Your task to perform on an android device: search for starred emails in the gmail app Image 0: 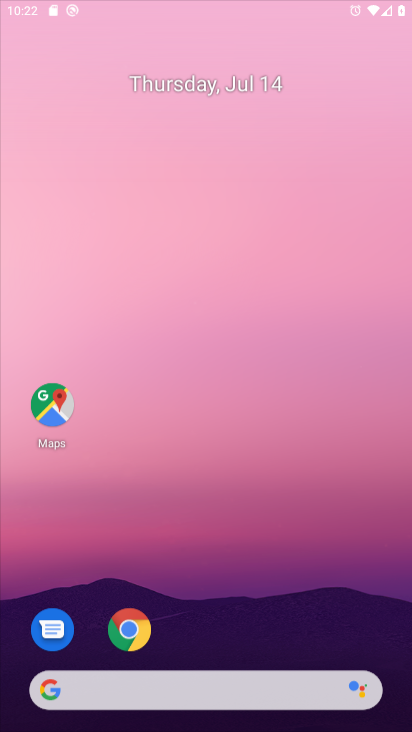
Step 0: click (296, 351)
Your task to perform on an android device: search for starred emails in the gmail app Image 1: 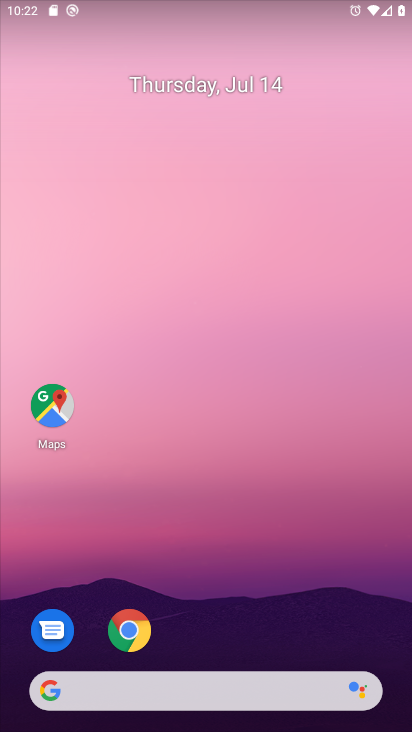
Step 1: drag from (223, 631) to (230, 245)
Your task to perform on an android device: search for starred emails in the gmail app Image 2: 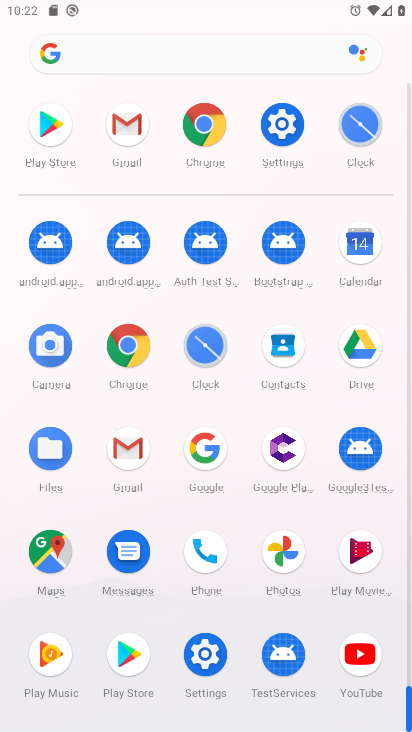
Step 2: click (128, 457)
Your task to perform on an android device: search for starred emails in the gmail app Image 3: 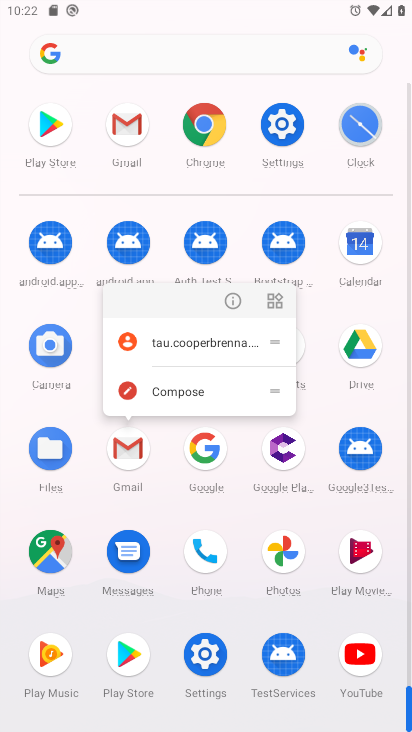
Step 3: click (226, 302)
Your task to perform on an android device: search for starred emails in the gmail app Image 4: 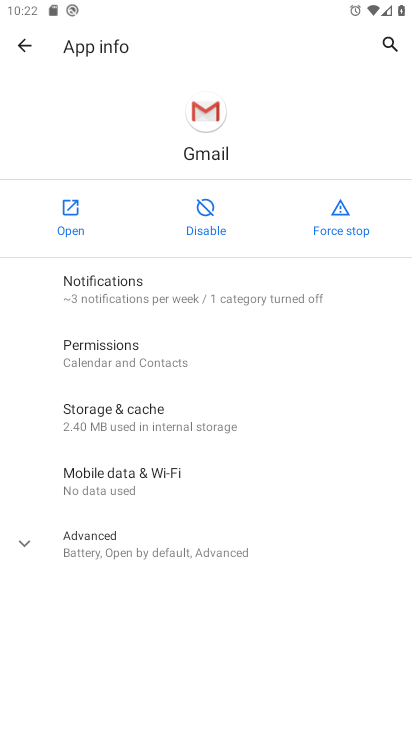
Step 4: click (81, 217)
Your task to perform on an android device: search for starred emails in the gmail app Image 5: 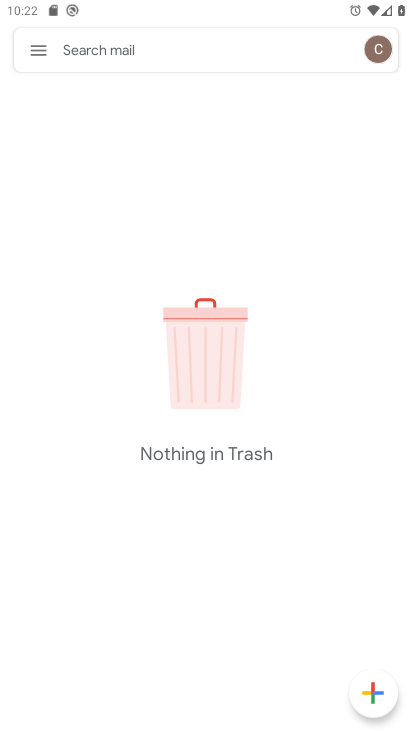
Step 5: drag from (158, 645) to (215, 243)
Your task to perform on an android device: search for starred emails in the gmail app Image 6: 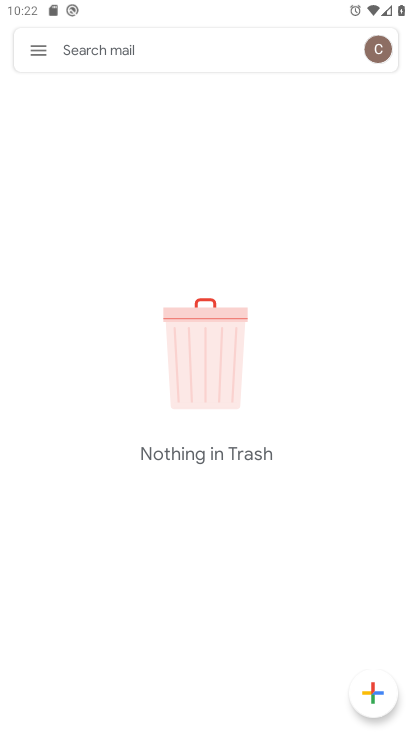
Step 6: click (36, 43)
Your task to perform on an android device: search for starred emails in the gmail app Image 7: 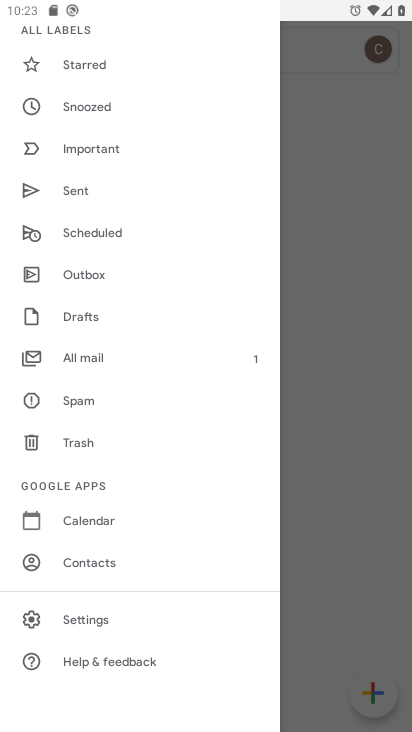
Step 7: click (97, 73)
Your task to perform on an android device: search for starred emails in the gmail app Image 8: 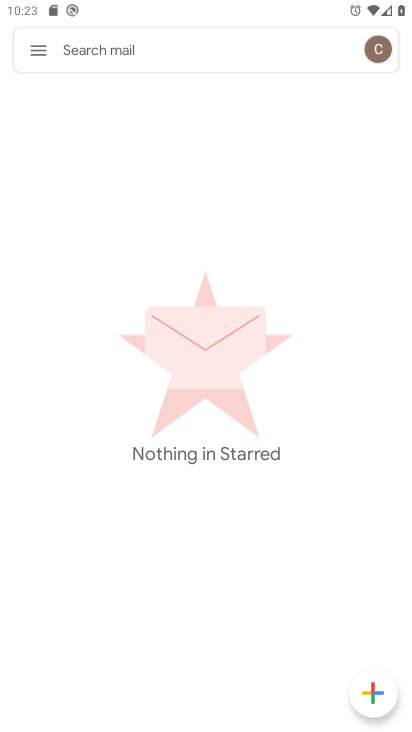
Step 8: drag from (149, 663) to (114, 290)
Your task to perform on an android device: search for starred emails in the gmail app Image 9: 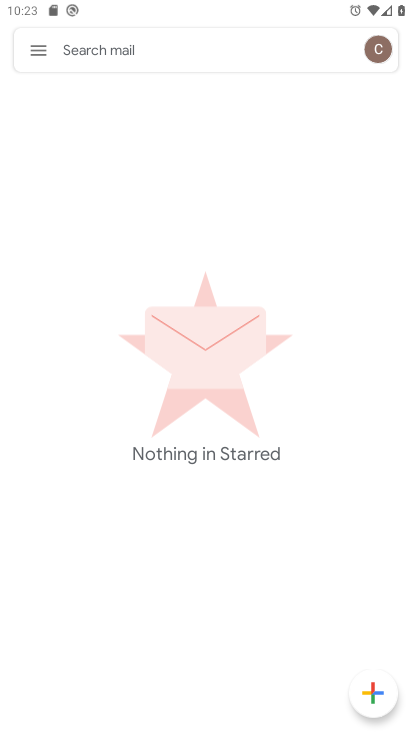
Step 9: click (35, 46)
Your task to perform on an android device: search for starred emails in the gmail app Image 10: 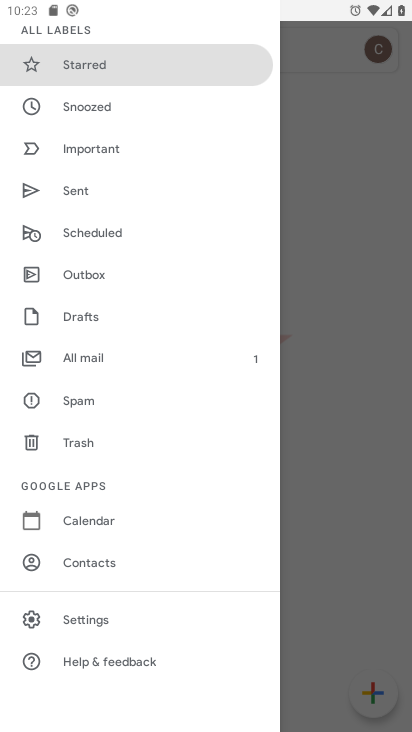
Step 10: task complete